Your task to perform on an android device: Open accessibility settings Image 0: 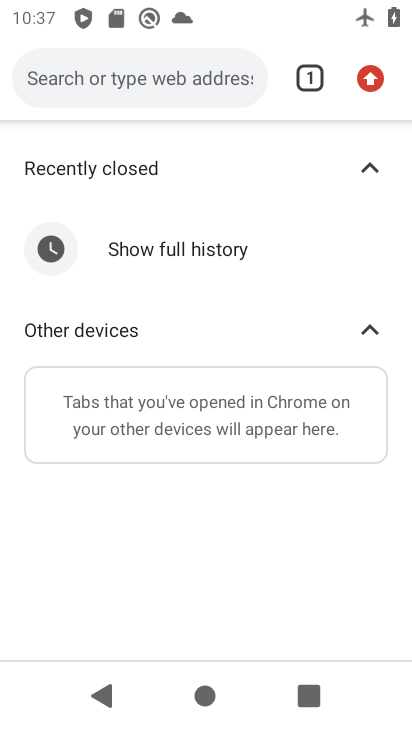
Step 0: press home button
Your task to perform on an android device: Open accessibility settings Image 1: 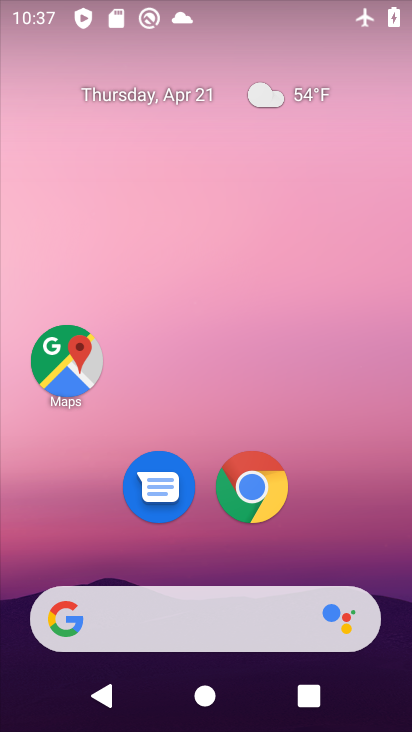
Step 1: drag from (346, 547) to (361, 112)
Your task to perform on an android device: Open accessibility settings Image 2: 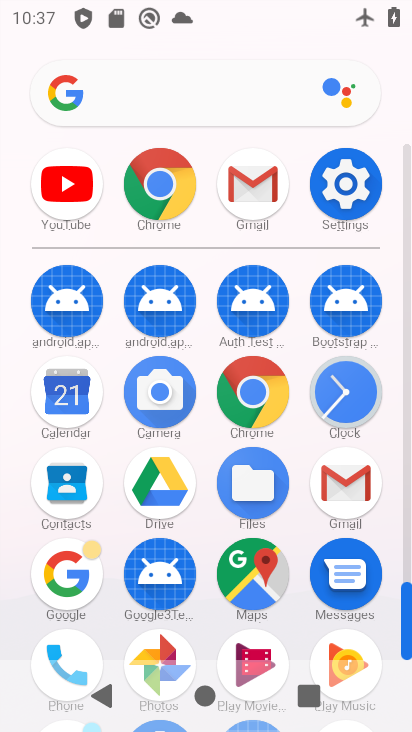
Step 2: click (352, 194)
Your task to perform on an android device: Open accessibility settings Image 3: 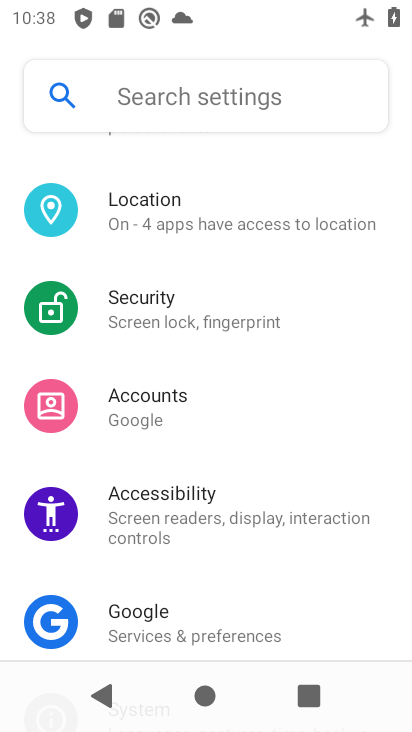
Step 3: click (204, 514)
Your task to perform on an android device: Open accessibility settings Image 4: 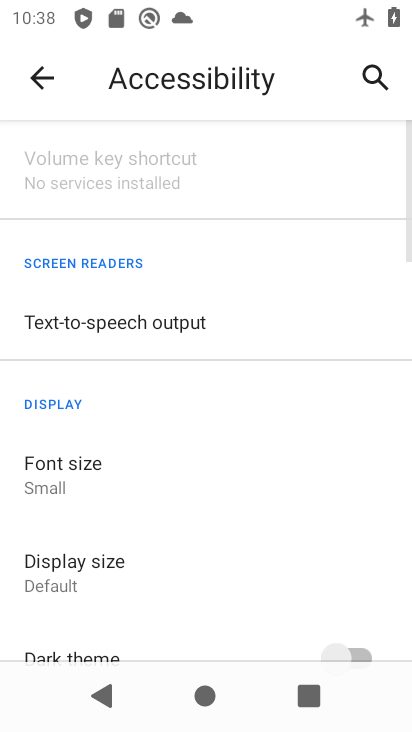
Step 4: task complete